Your task to perform on an android device: open a bookmark in the chrome app Image 0: 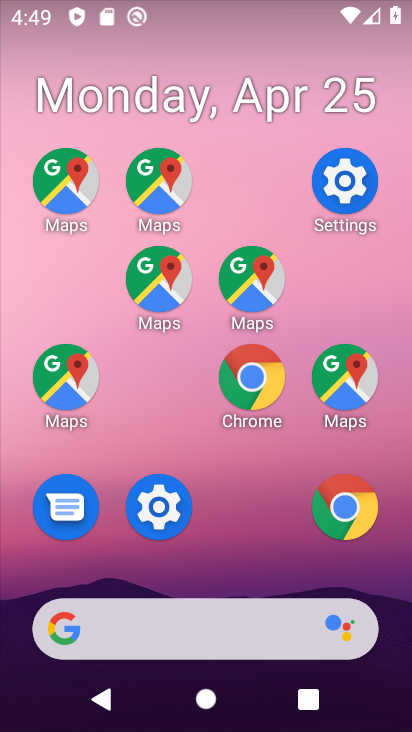
Step 0: drag from (274, 688) to (272, 128)
Your task to perform on an android device: open a bookmark in the chrome app Image 1: 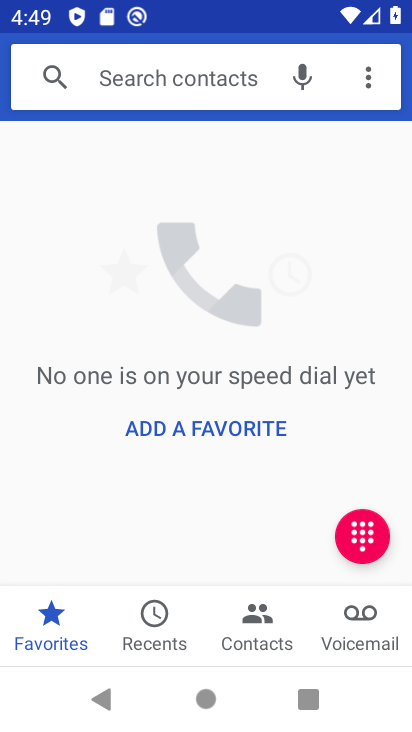
Step 1: press home button
Your task to perform on an android device: open a bookmark in the chrome app Image 2: 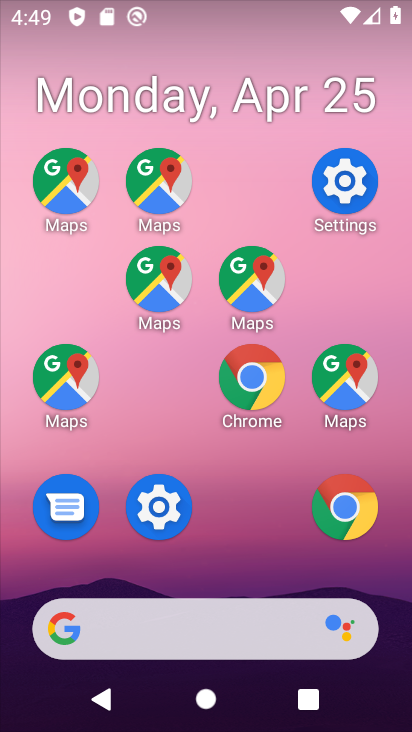
Step 2: drag from (331, 373) to (264, 0)
Your task to perform on an android device: open a bookmark in the chrome app Image 3: 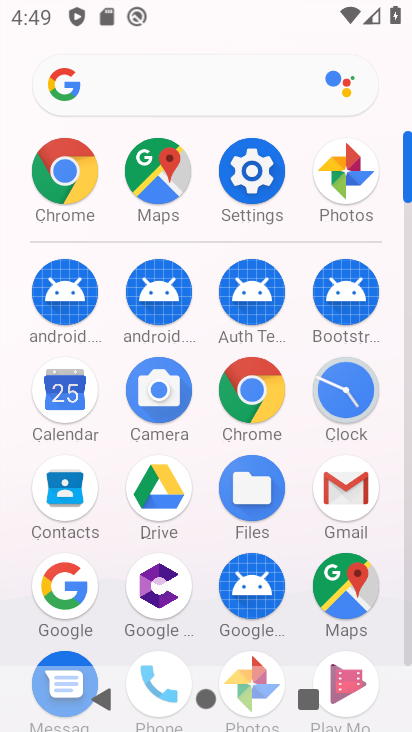
Step 3: click (48, 129)
Your task to perform on an android device: open a bookmark in the chrome app Image 4: 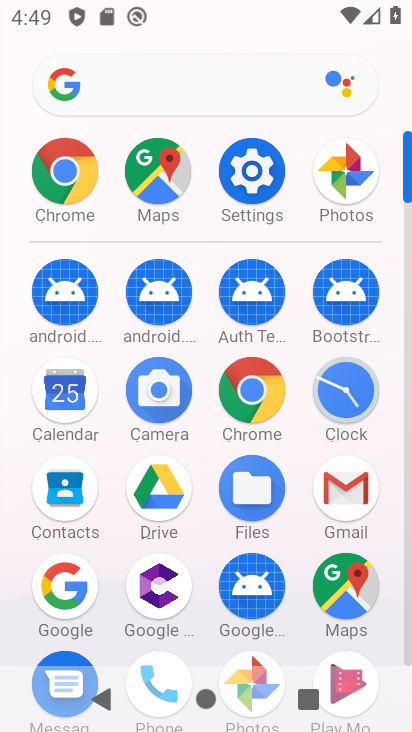
Step 4: click (56, 162)
Your task to perform on an android device: open a bookmark in the chrome app Image 5: 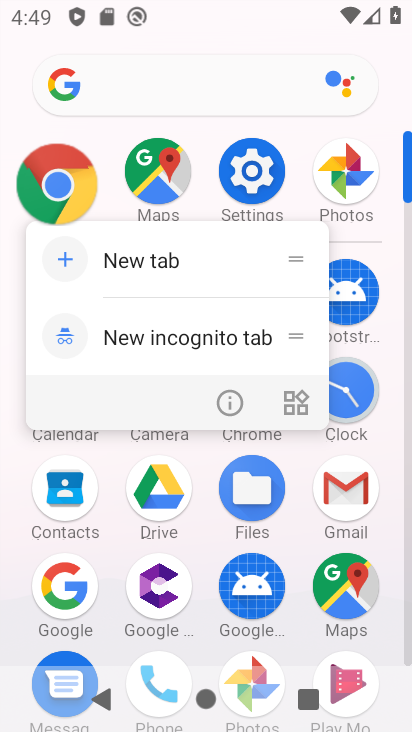
Step 5: click (48, 175)
Your task to perform on an android device: open a bookmark in the chrome app Image 6: 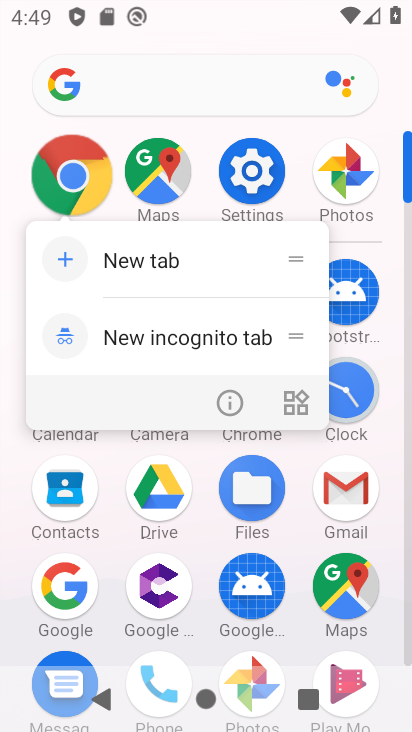
Step 6: click (85, 200)
Your task to perform on an android device: open a bookmark in the chrome app Image 7: 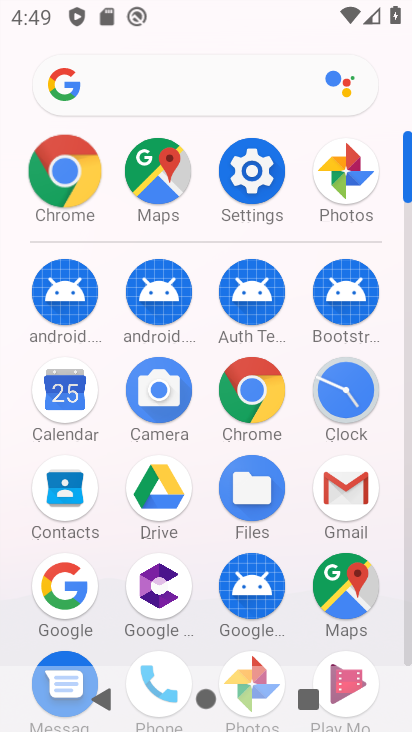
Step 7: click (83, 204)
Your task to perform on an android device: open a bookmark in the chrome app Image 8: 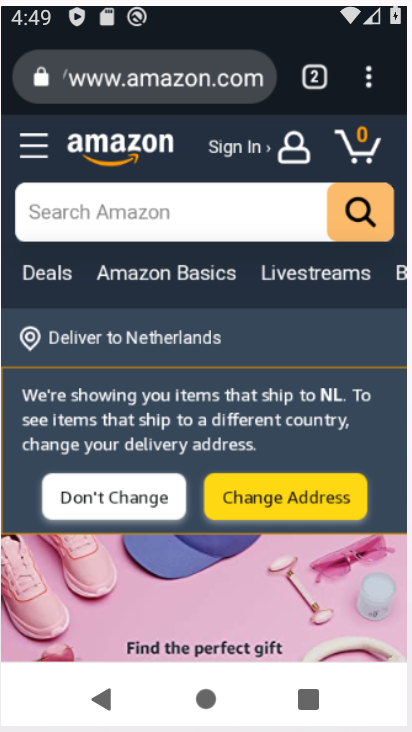
Step 8: click (83, 204)
Your task to perform on an android device: open a bookmark in the chrome app Image 9: 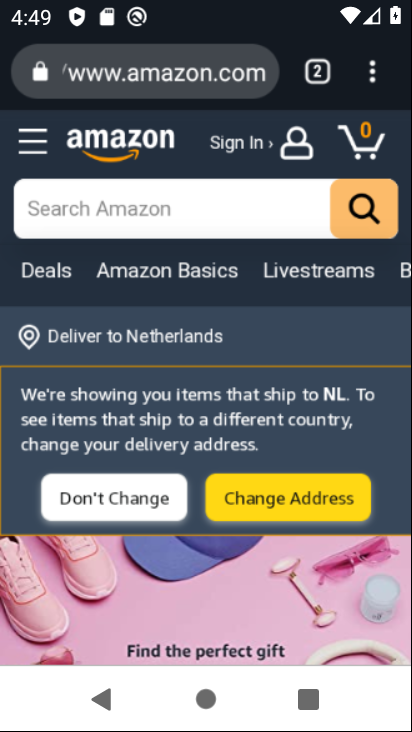
Step 9: click (83, 205)
Your task to perform on an android device: open a bookmark in the chrome app Image 10: 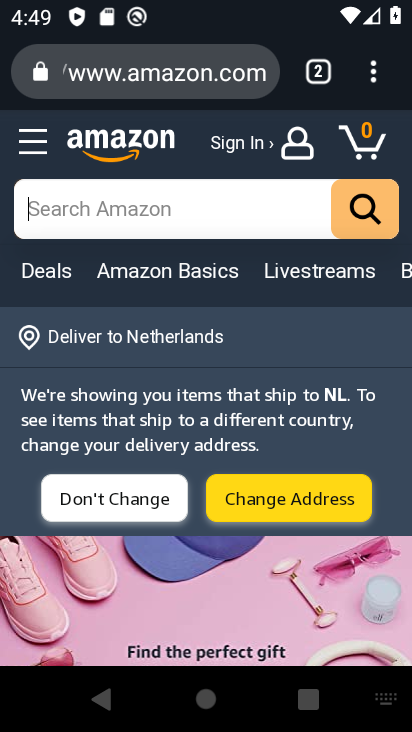
Step 10: click (375, 73)
Your task to perform on an android device: open a bookmark in the chrome app Image 11: 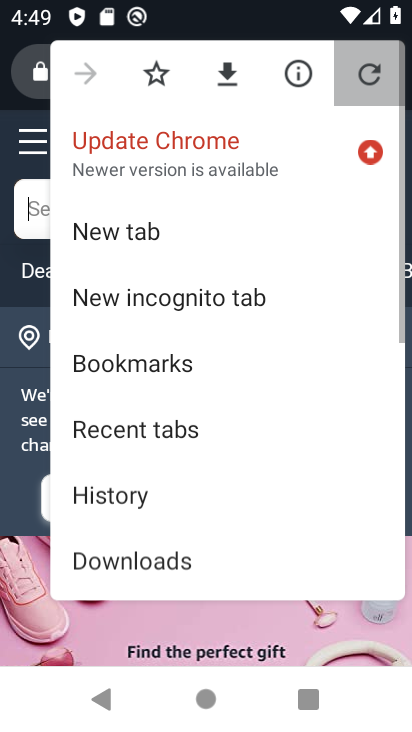
Step 11: click (376, 72)
Your task to perform on an android device: open a bookmark in the chrome app Image 12: 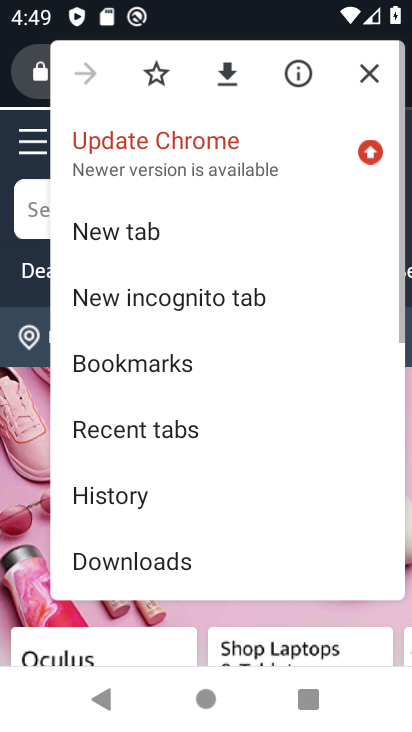
Step 12: drag from (338, 106) to (145, 249)
Your task to perform on an android device: open a bookmark in the chrome app Image 13: 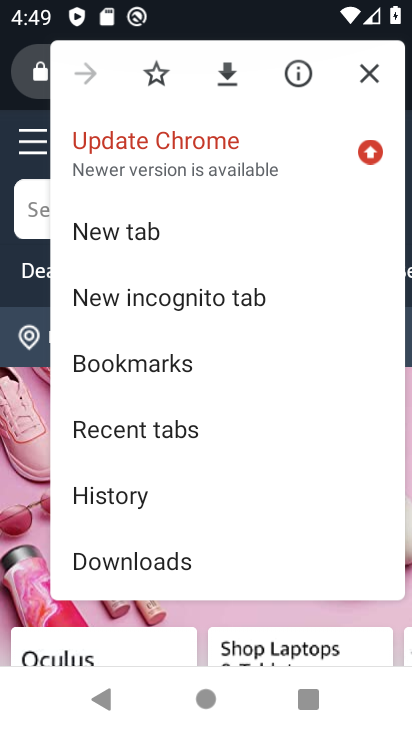
Step 13: click (95, 357)
Your task to perform on an android device: open a bookmark in the chrome app Image 14: 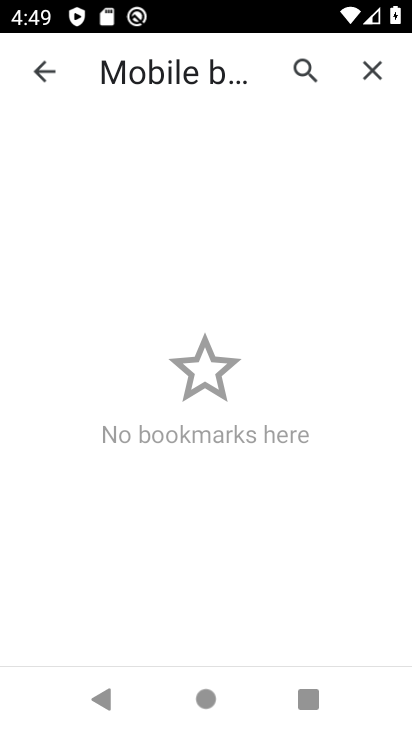
Step 14: task complete